Your task to perform on an android device: open app "Reddit" (install if not already installed), go to login, and select forgot password Image 0: 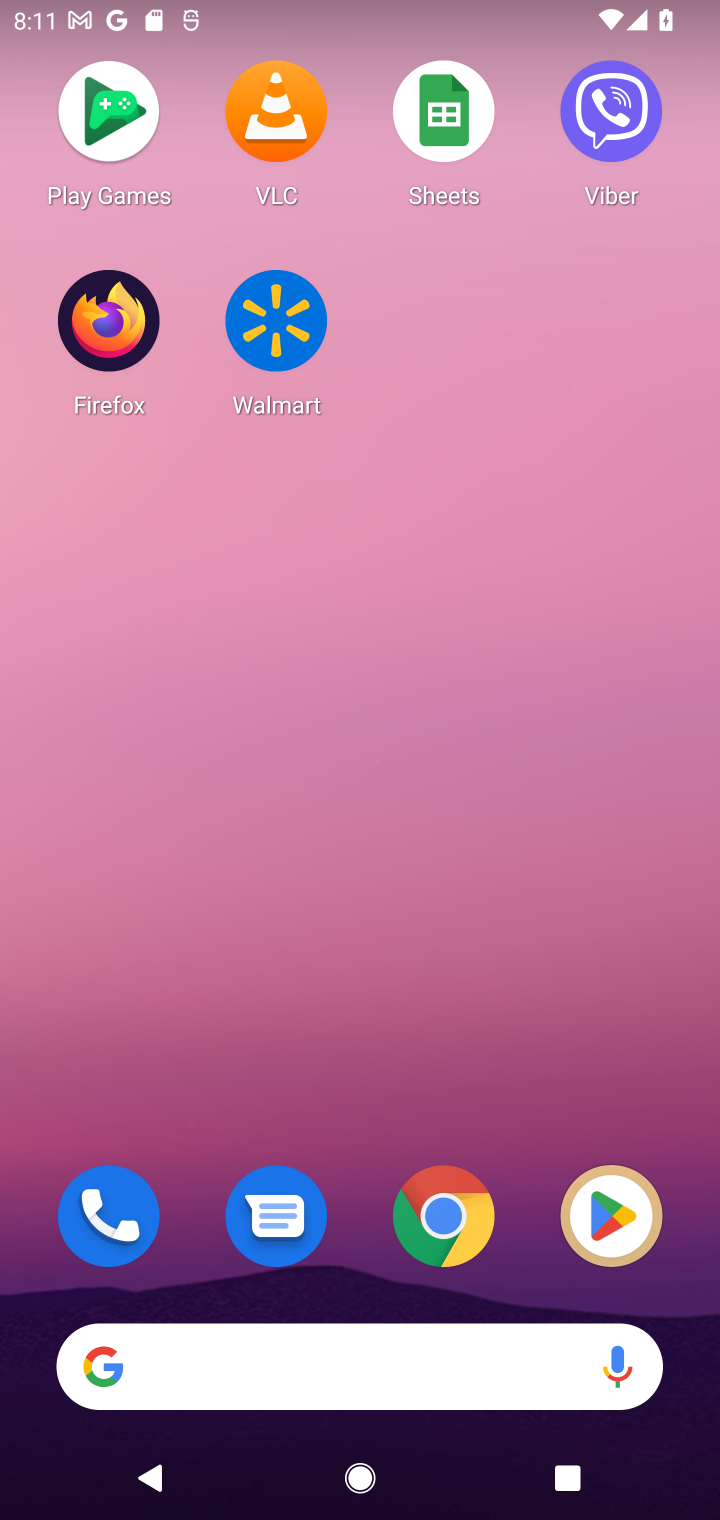
Step 0: click (618, 1236)
Your task to perform on an android device: open app "Reddit" (install if not already installed), go to login, and select forgot password Image 1: 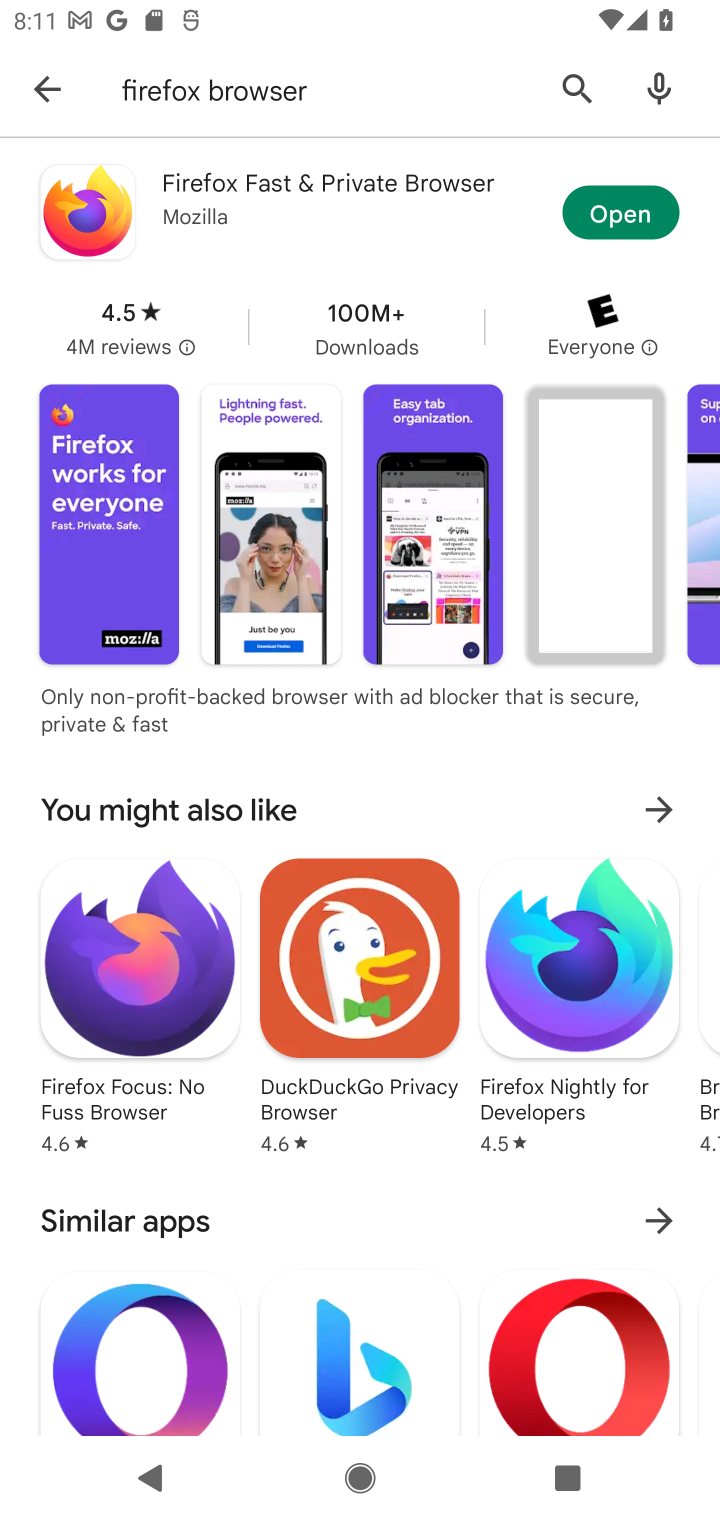
Step 1: click (576, 100)
Your task to perform on an android device: open app "Reddit" (install if not already installed), go to login, and select forgot password Image 2: 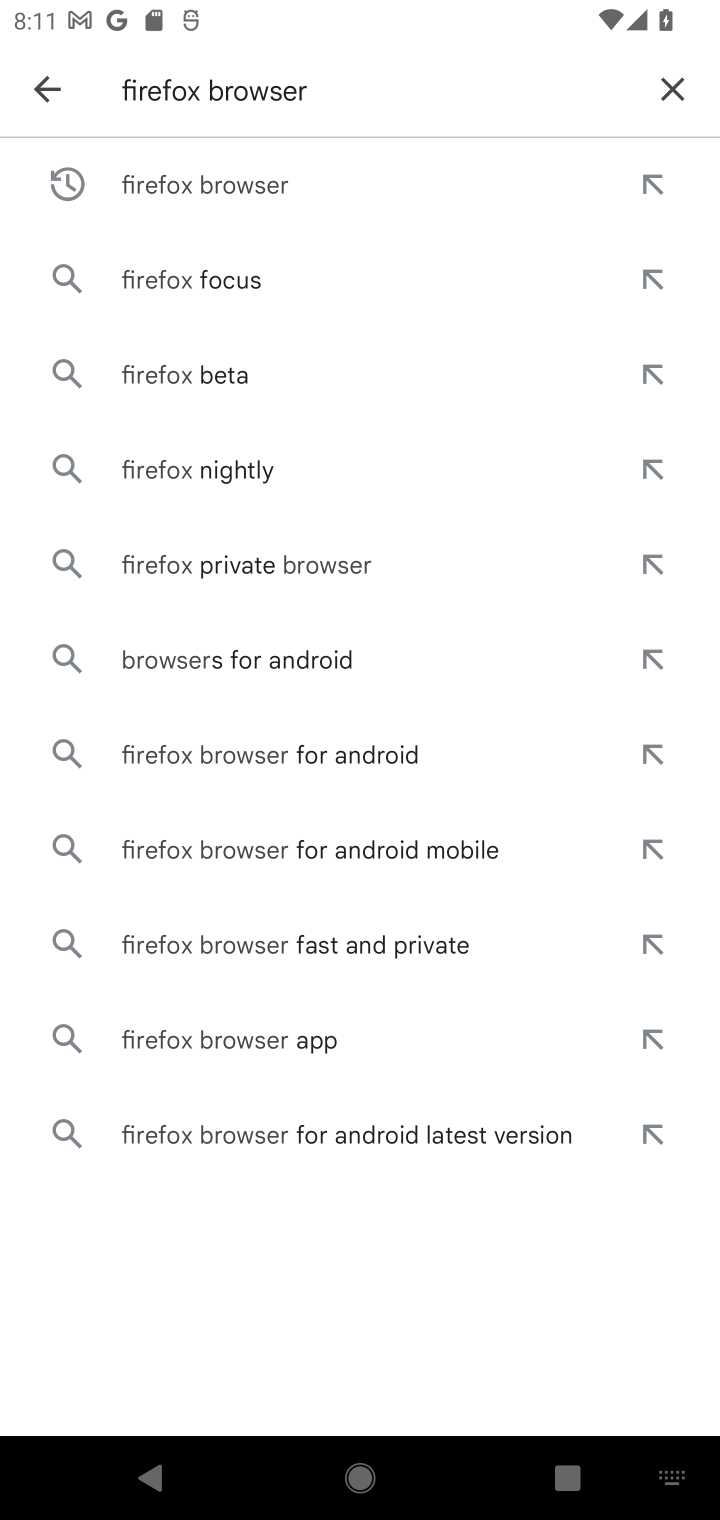
Step 2: click (663, 83)
Your task to perform on an android device: open app "Reddit" (install if not already installed), go to login, and select forgot password Image 3: 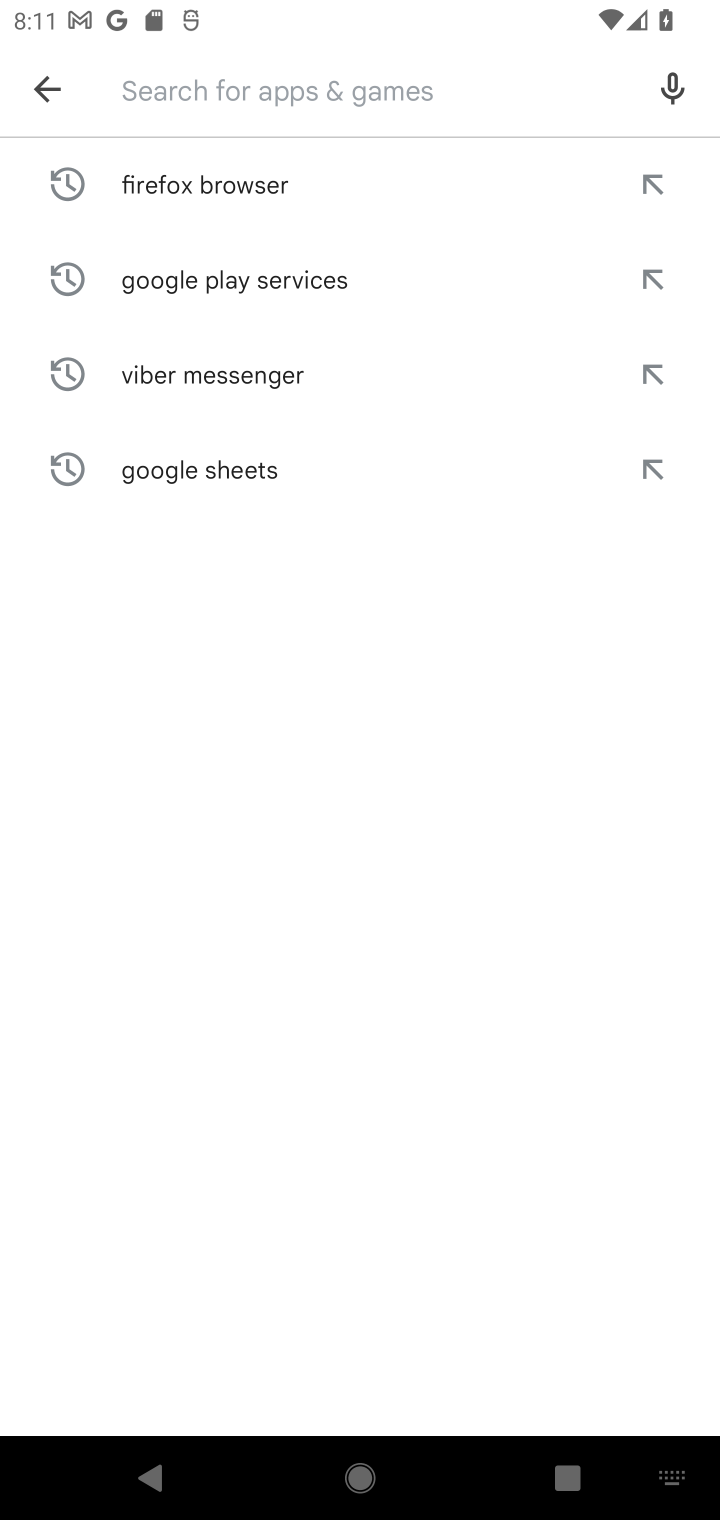
Step 3: click (385, 88)
Your task to perform on an android device: open app "Reddit" (install if not already installed), go to login, and select forgot password Image 4: 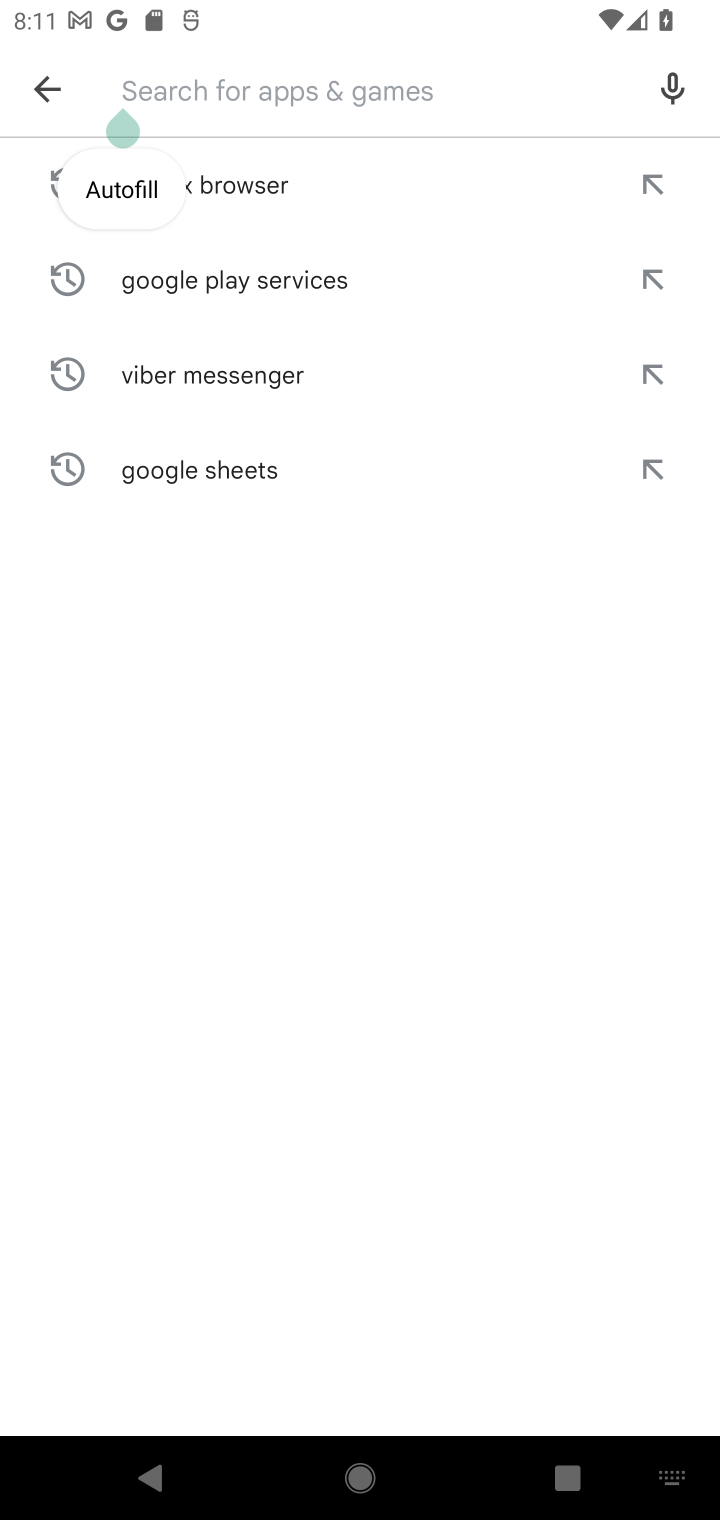
Step 4: type "reddit"
Your task to perform on an android device: open app "Reddit" (install if not already installed), go to login, and select forgot password Image 5: 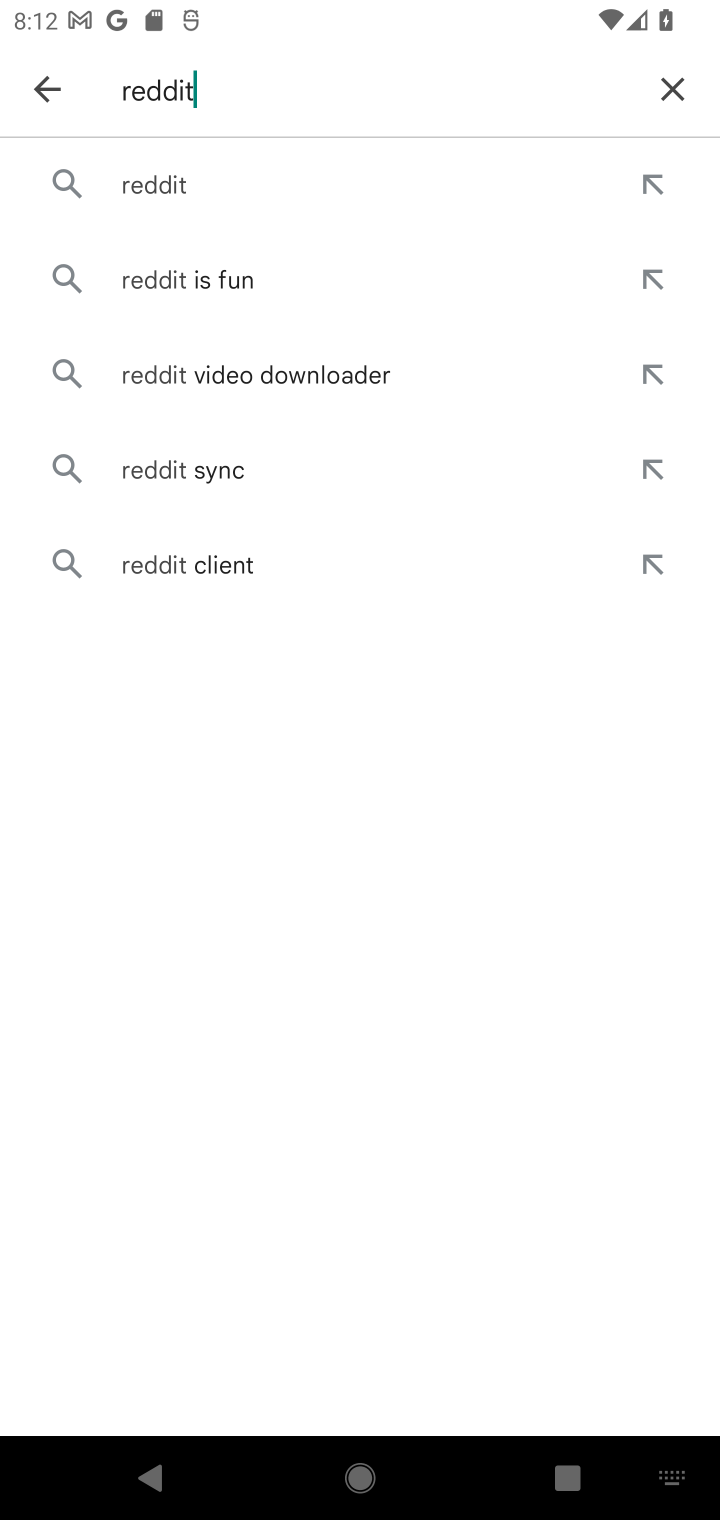
Step 5: click (184, 174)
Your task to perform on an android device: open app "Reddit" (install if not already installed), go to login, and select forgot password Image 6: 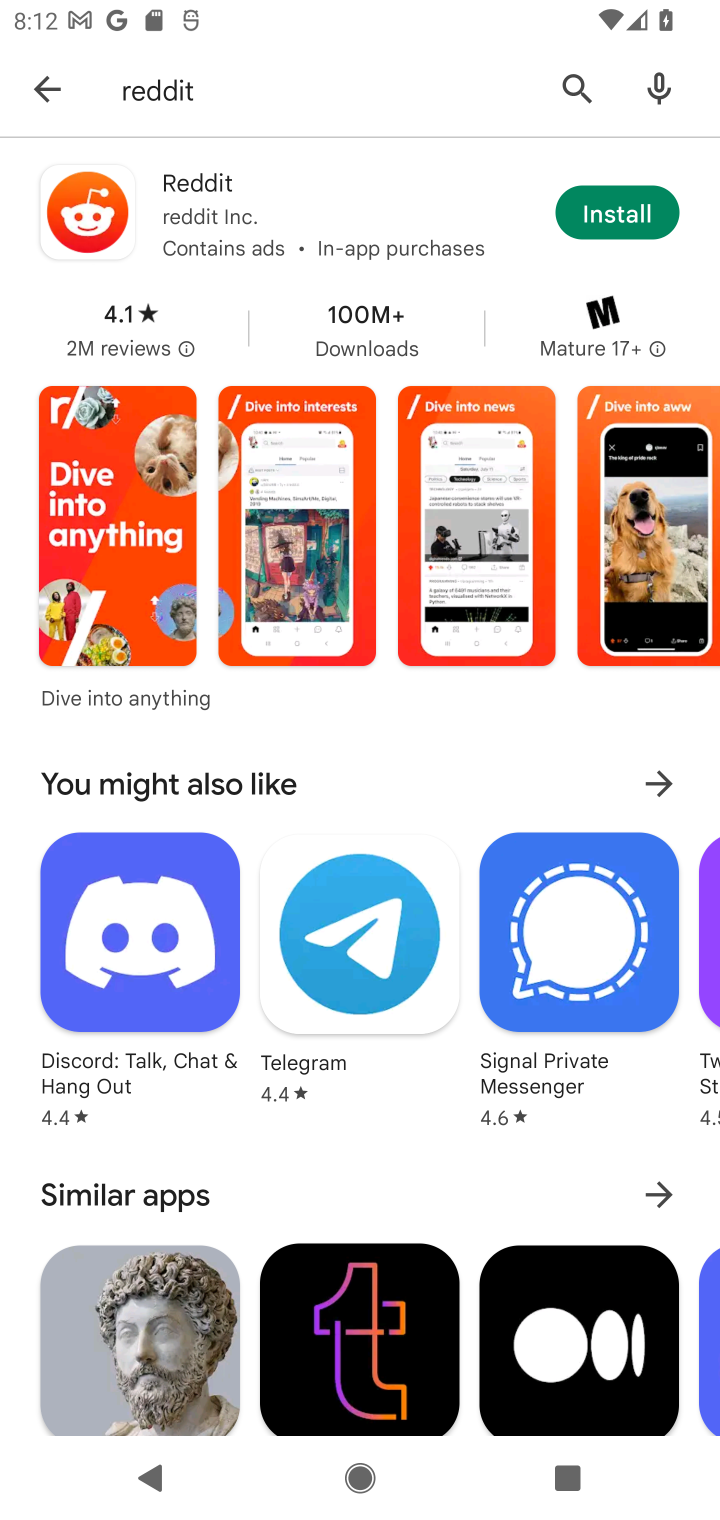
Step 6: click (606, 220)
Your task to perform on an android device: open app "Reddit" (install if not already installed), go to login, and select forgot password Image 7: 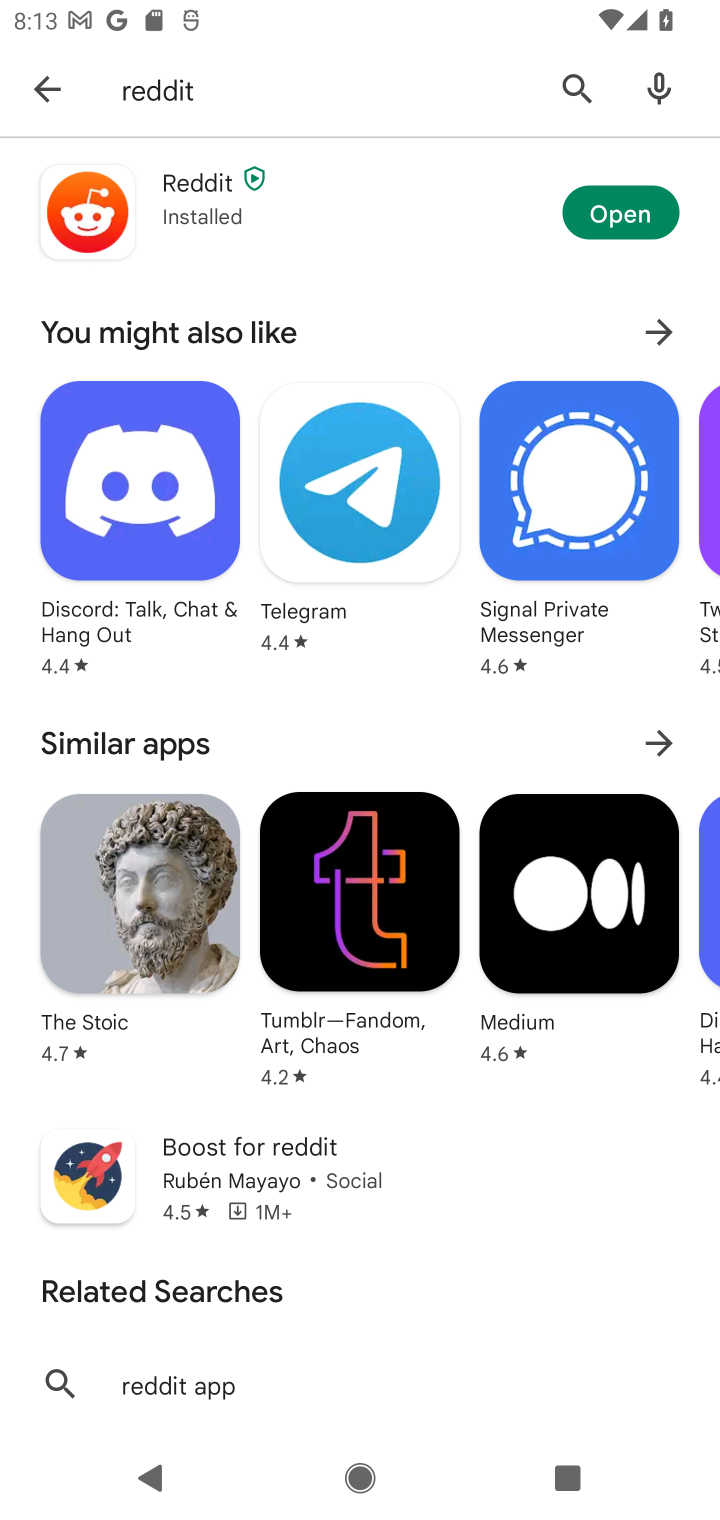
Step 7: click (638, 207)
Your task to perform on an android device: open app "Reddit" (install if not already installed), go to login, and select forgot password Image 8: 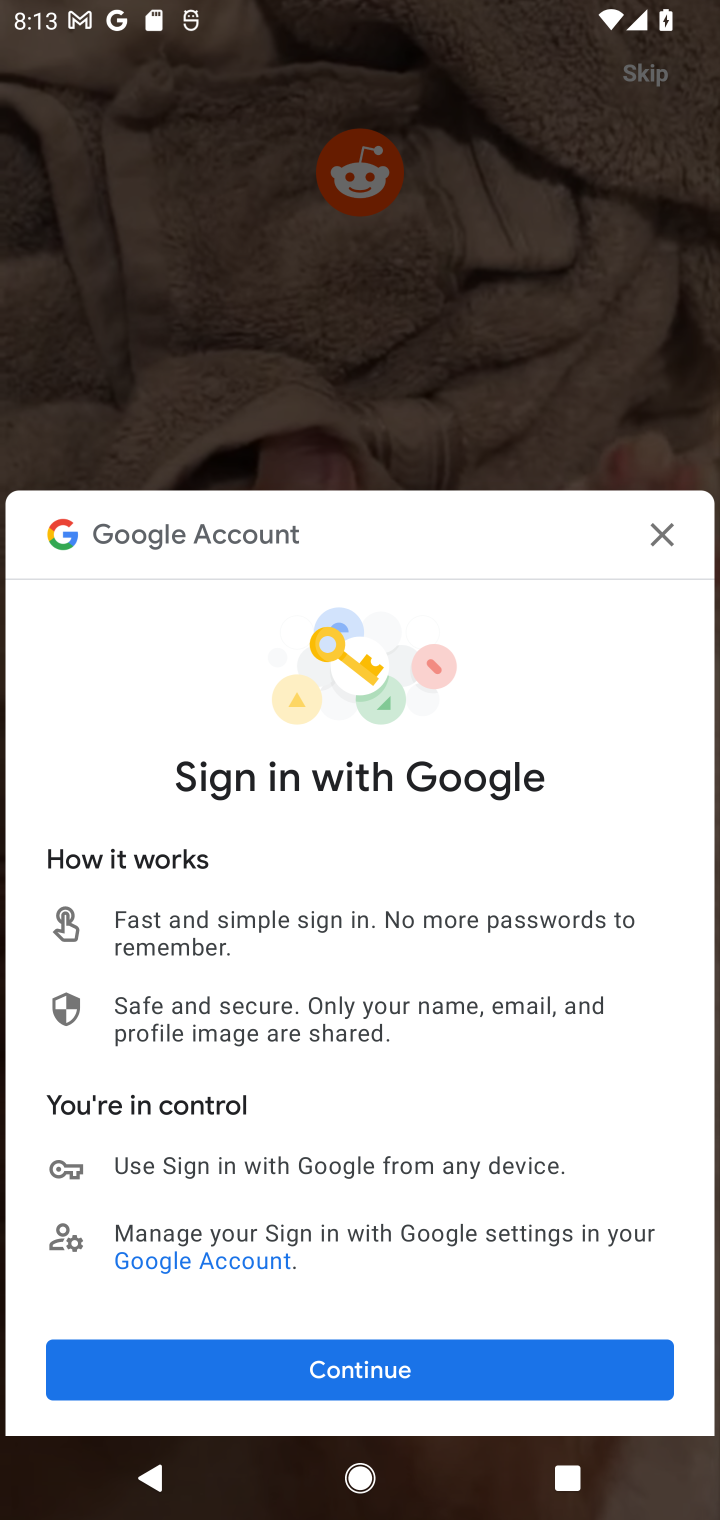
Step 8: click (342, 1352)
Your task to perform on an android device: open app "Reddit" (install if not already installed), go to login, and select forgot password Image 9: 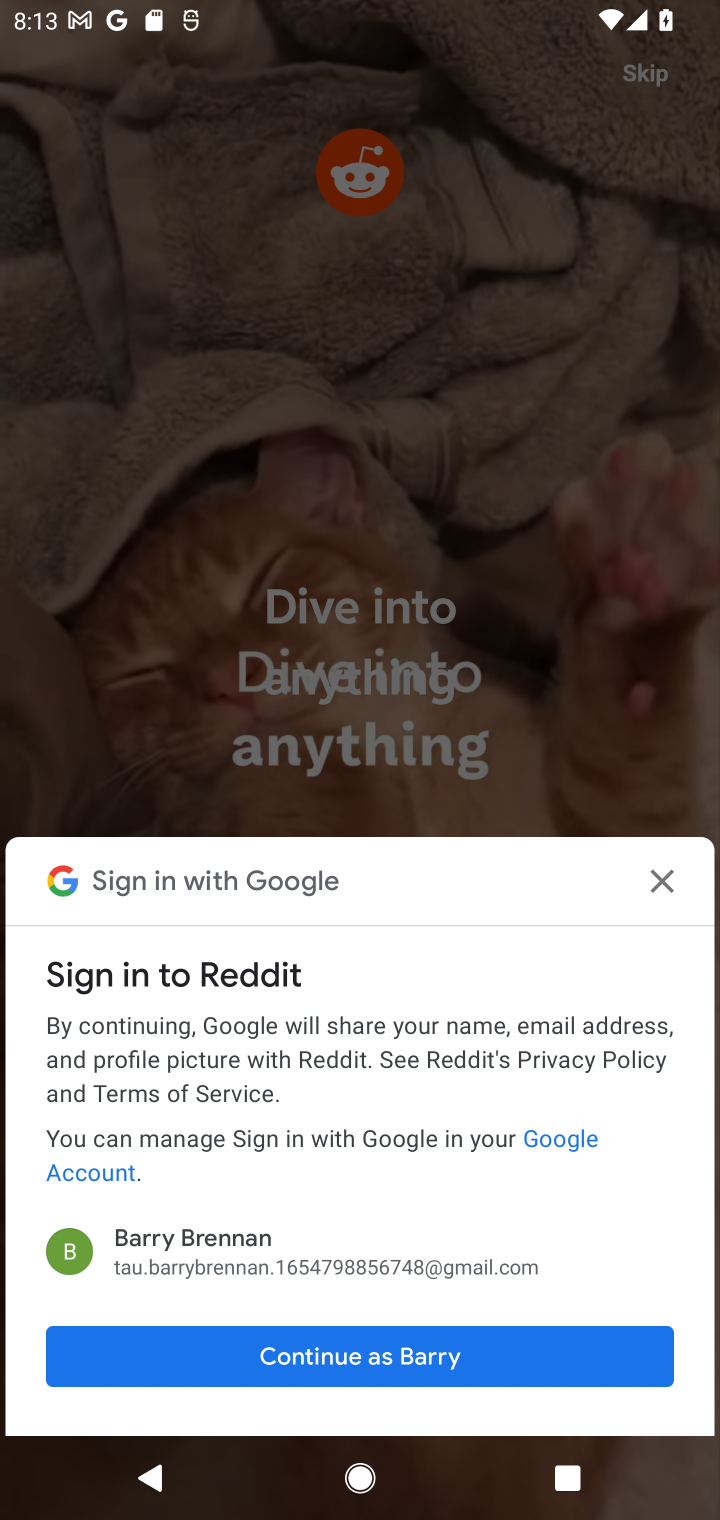
Step 9: click (409, 1362)
Your task to perform on an android device: open app "Reddit" (install if not already installed), go to login, and select forgot password Image 10: 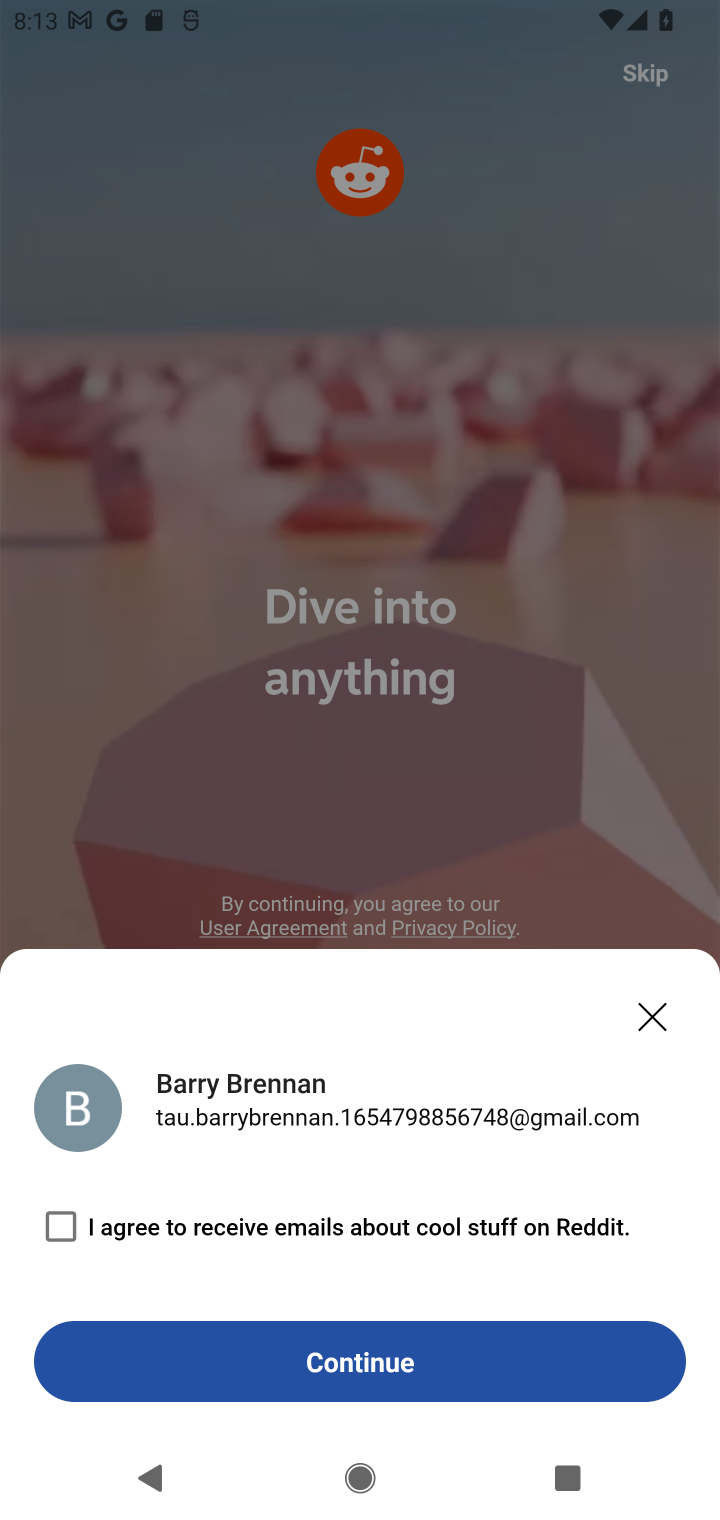
Step 10: click (649, 1019)
Your task to perform on an android device: open app "Reddit" (install if not already installed), go to login, and select forgot password Image 11: 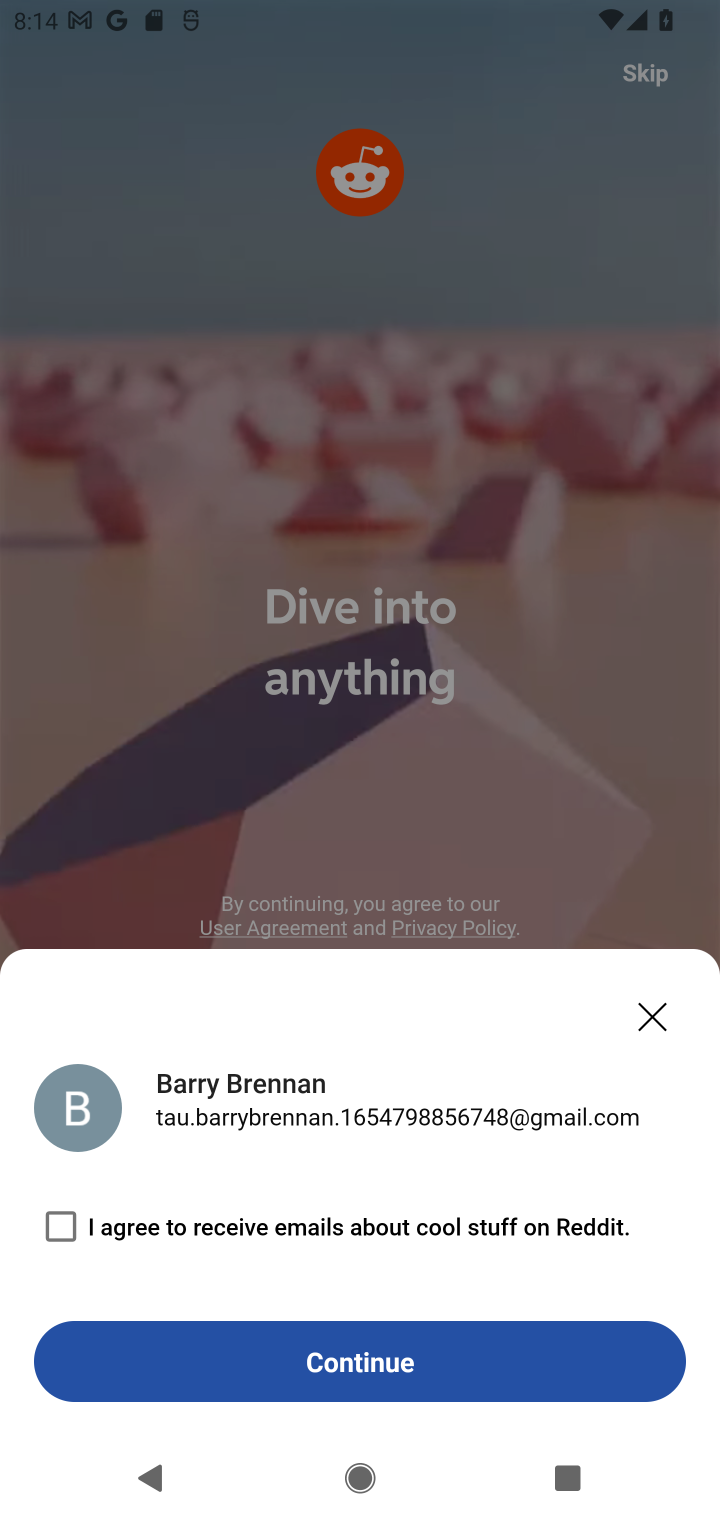
Step 11: click (651, 1000)
Your task to perform on an android device: open app "Reddit" (install if not already installed), go to login, and select forgot password Image 12: 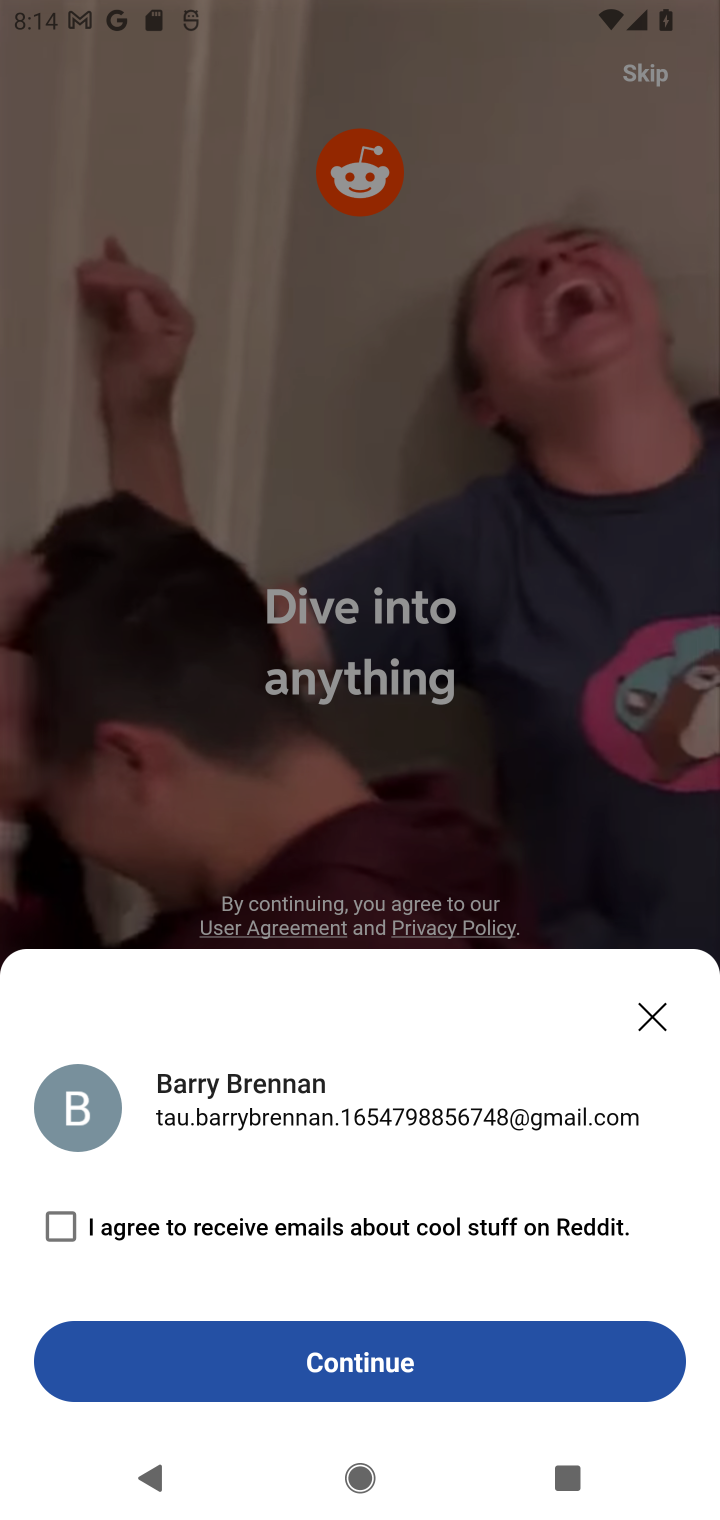
Step 12: click (664, 1012)
Your task to perform on an android device: open app "Reddit" (install if not already installed), go to login, and select forgot password Image 13: 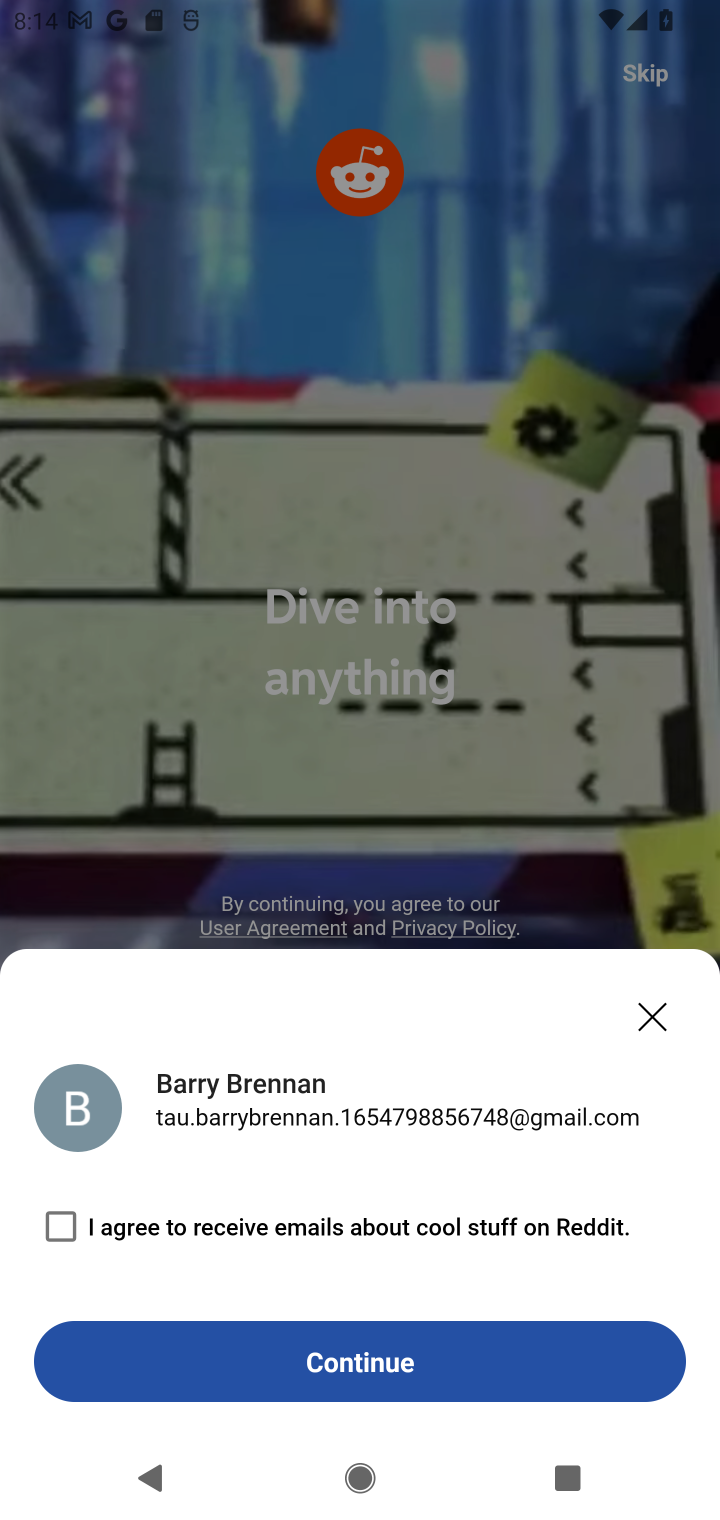
Step 13: click (300, 1230)
Your task to perform on an android device: open app "Reddit" (install if not already installed), go to login, and select forgot password Image 14: 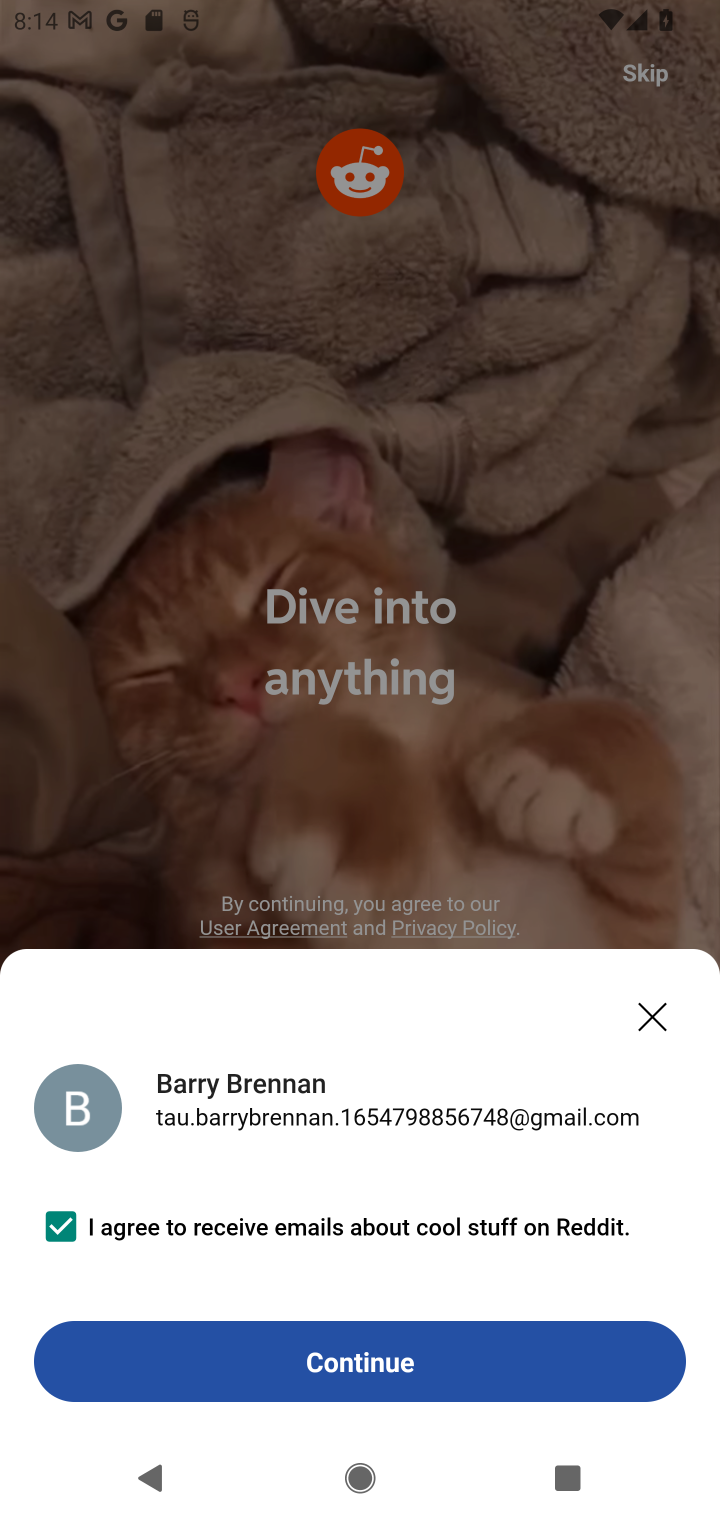
Step 14: click (328, 1336)
Your task to perform on an android device: open app "Reddit" (install if not already installed), go to login, and select forgot password Image 15: 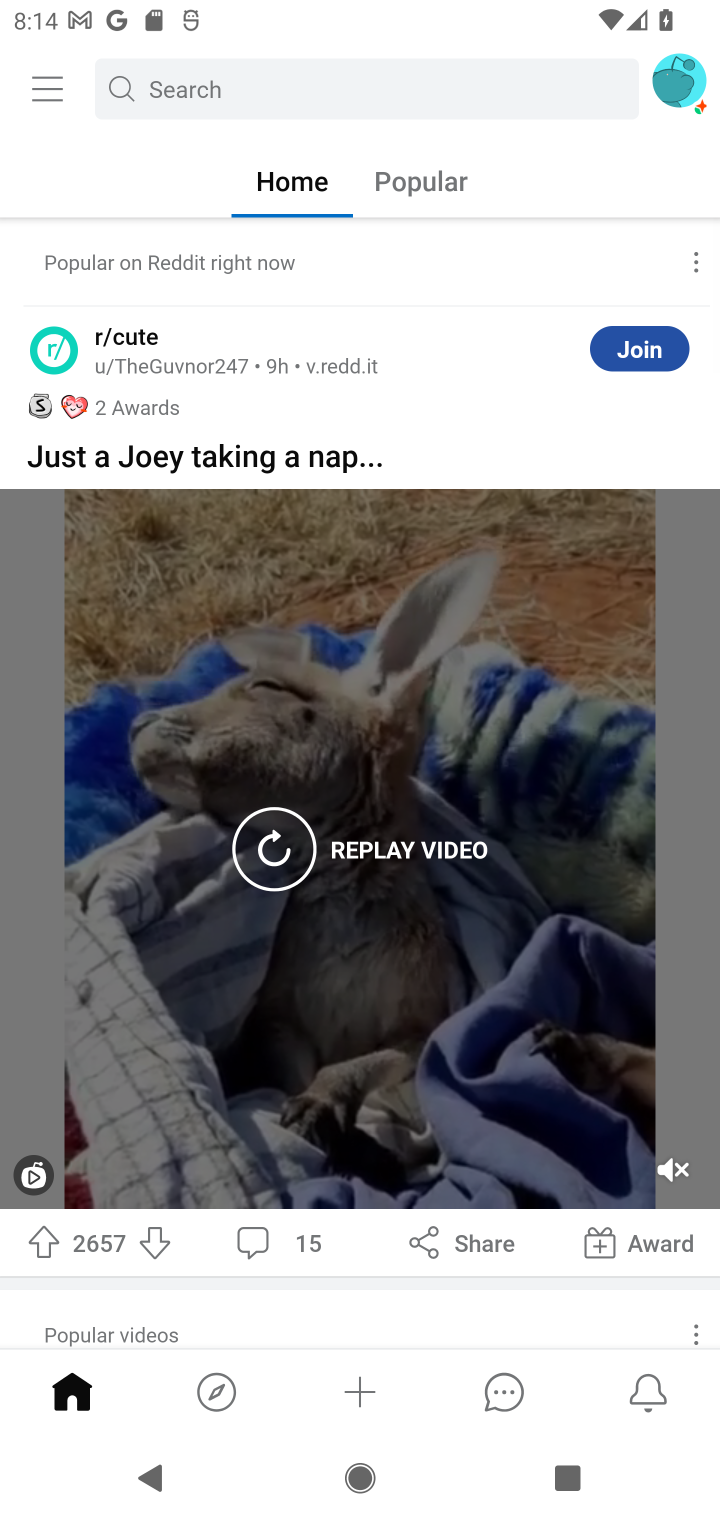
Step 15: click (679, 93)
Your task to perform on an android device: open app "Reddit" (install if not already installed), go to login, and select forgot password Image 16: 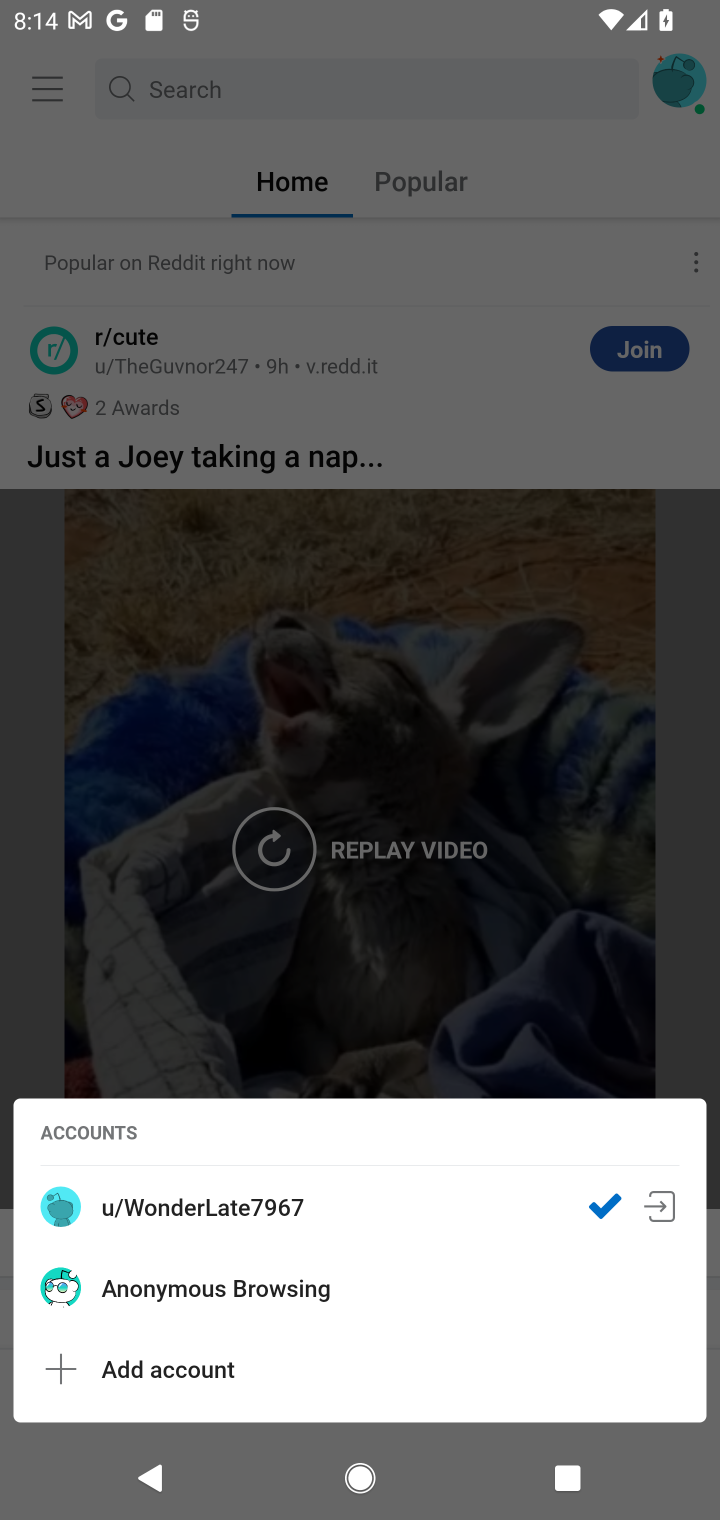
Step 16: task complete